Your task to perform on an android device: Add asus rog to the cart on ebay.com, then select checkout. Image 0: 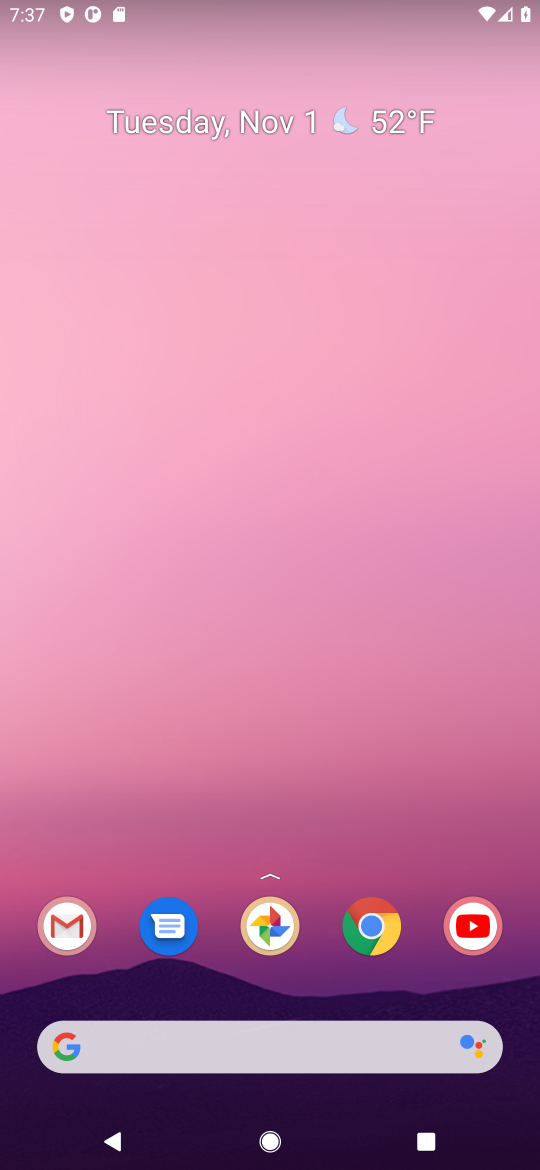
Step 0: click (390, 910)
Your task to perform on an android device: Add asus rog to the cart on ebay.com, then select checkout. Image 1: 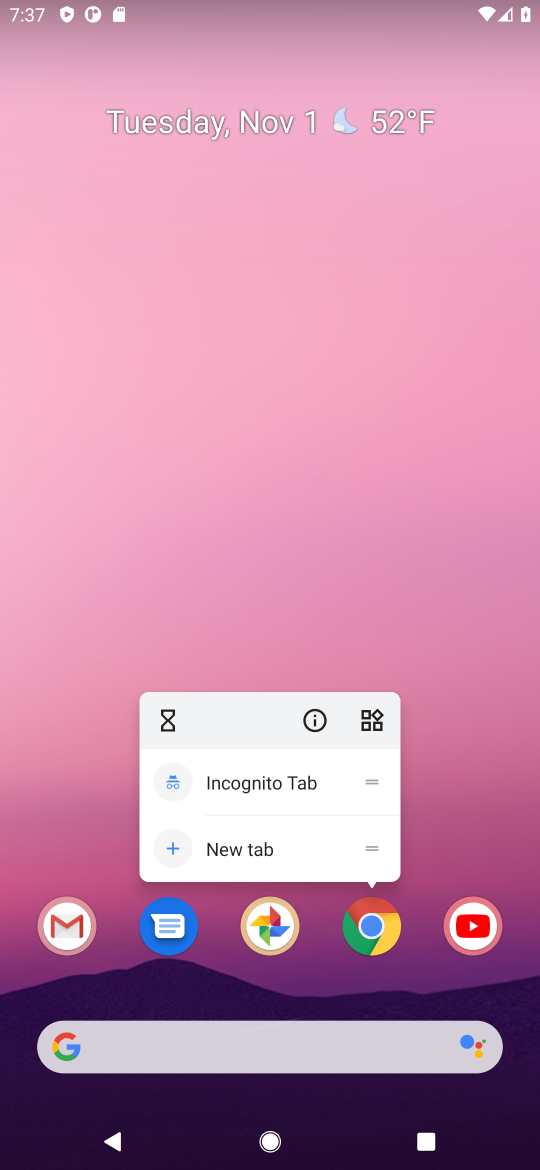
Step 1: click (348, 918)
Your task to perform on an android device: Add asus rog to the cart on ebay.com, then select checkout. Image 2: 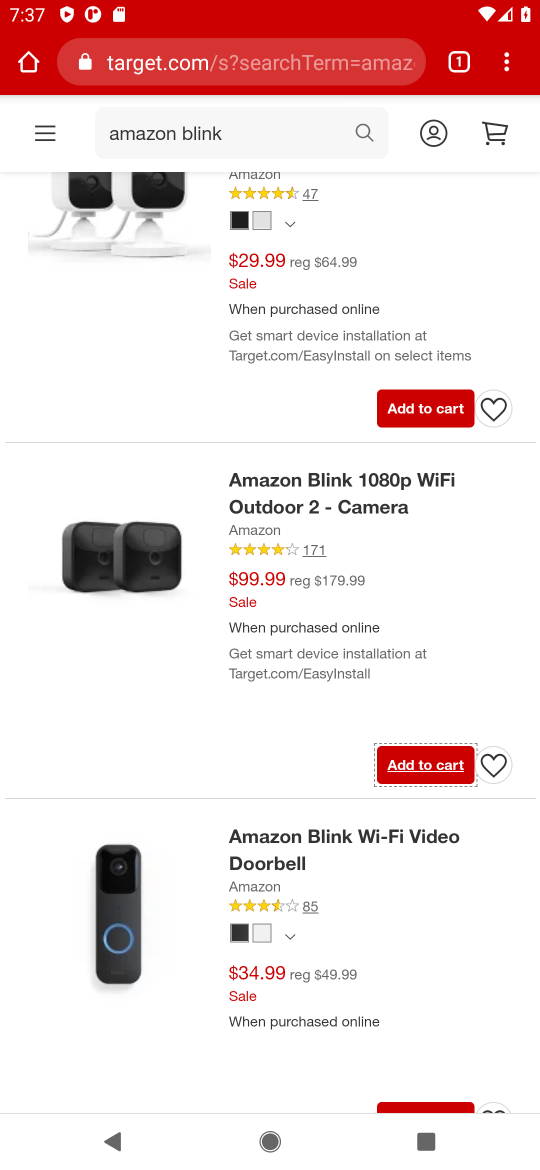
Step 2: click (174, 66)
Your task to perform on an android device: Add asus rog to the cart on ebay.com, then select checkout. Image 3: 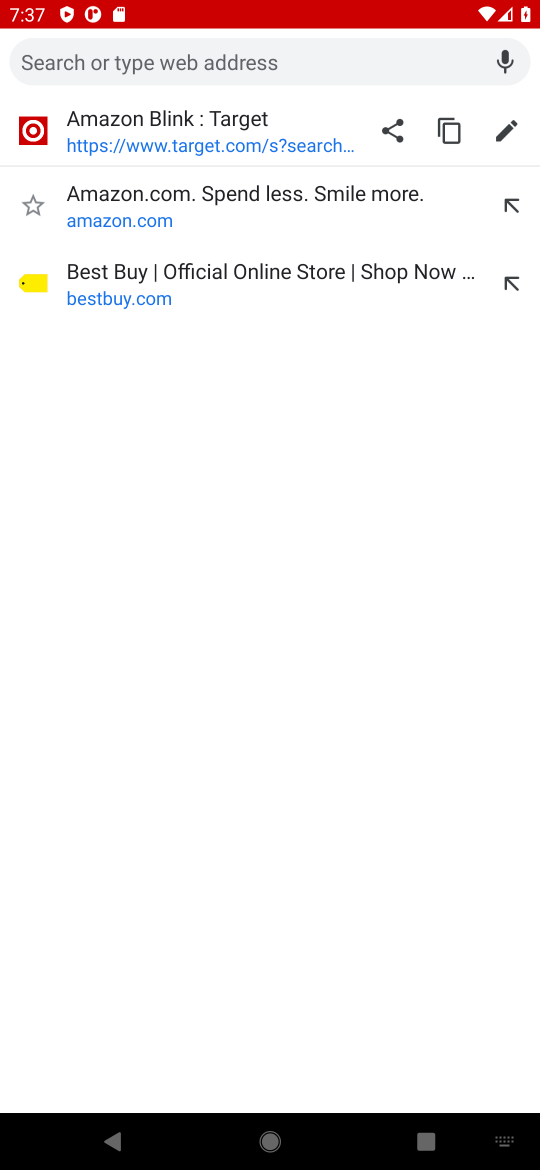
Step 3: type "ebay.com"
Your task to perform on an android device: Add asus rog to the cart on ebay.com, then select checkout. Image 4: 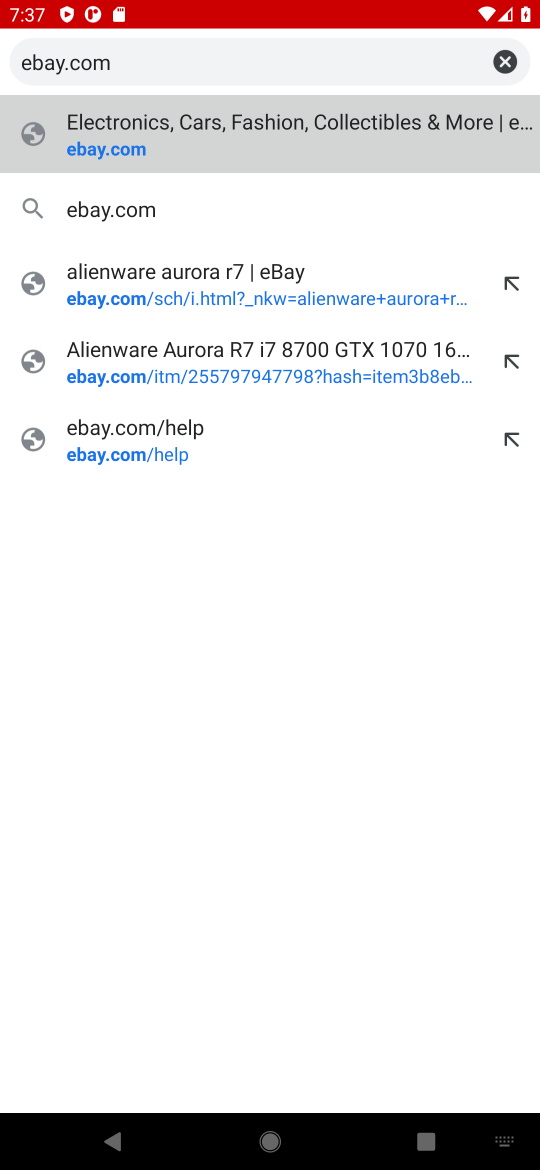
Step 4: click (207, 126)
Your task to perform on an android device: Add asus rog to the cart on ebay.com, then select checkout. Image 5: 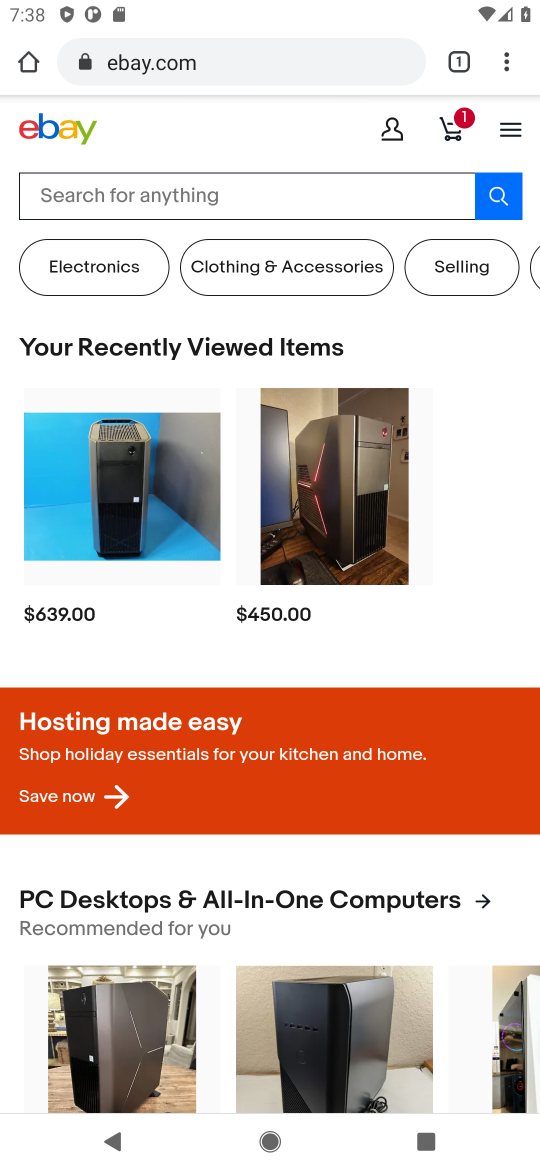
Step 5: click (63, 189)
Your task to perform on an android device: Add asus rog to the cart on ebay.com, then select checkout. Image 6: 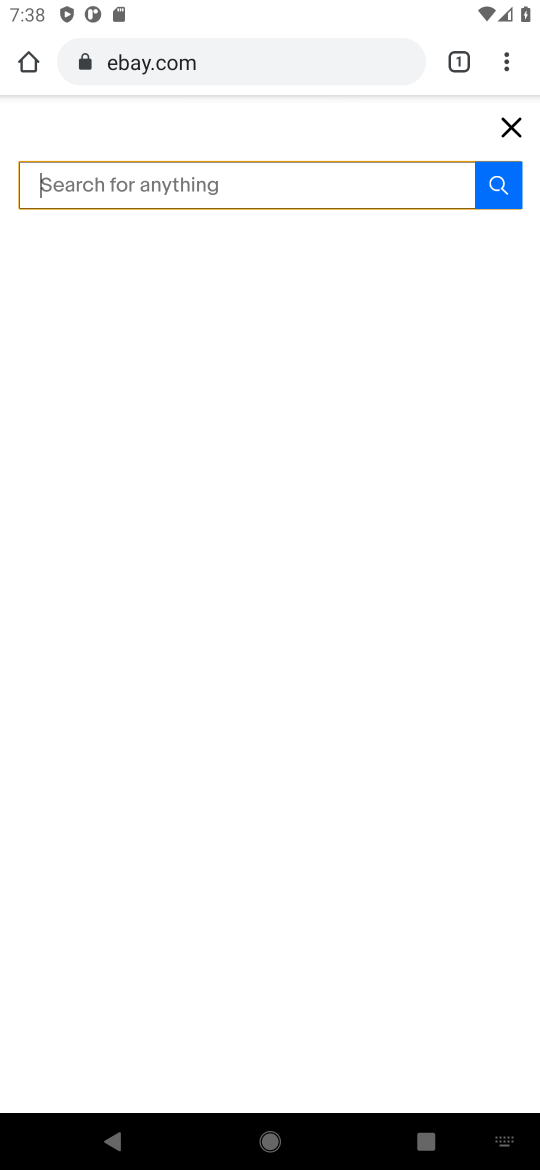
Step 6: type "asus rog"
Your task to perform on an android device: Add asus rog to the cart on ebay.com, then select checkout. Image 7: 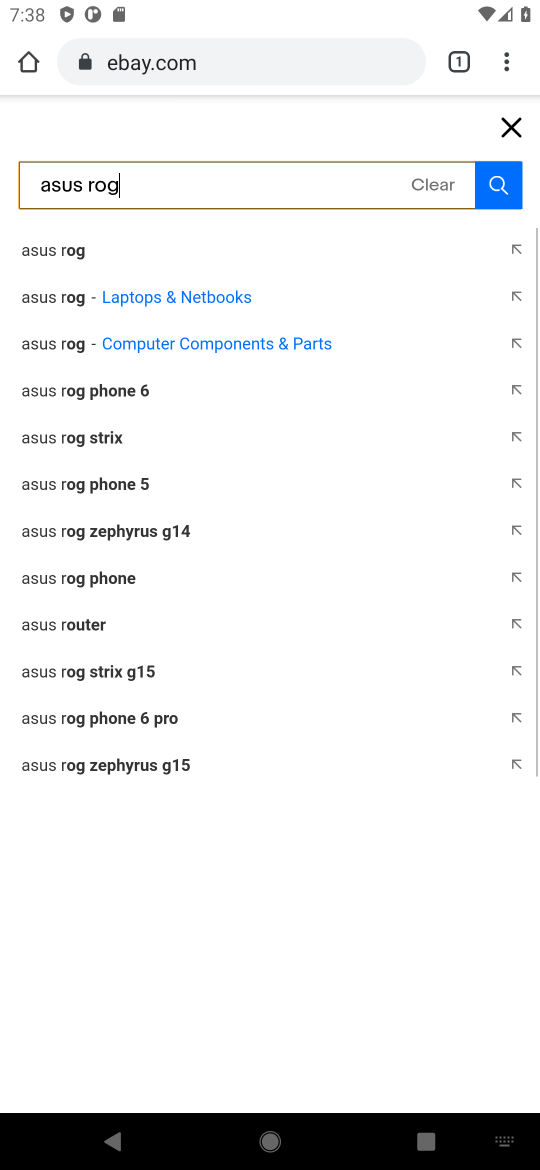
Step 7: type ""
Your task to perform on an android device: Add asus rog to the cart on ebay.com, then select checkout. Image 8: 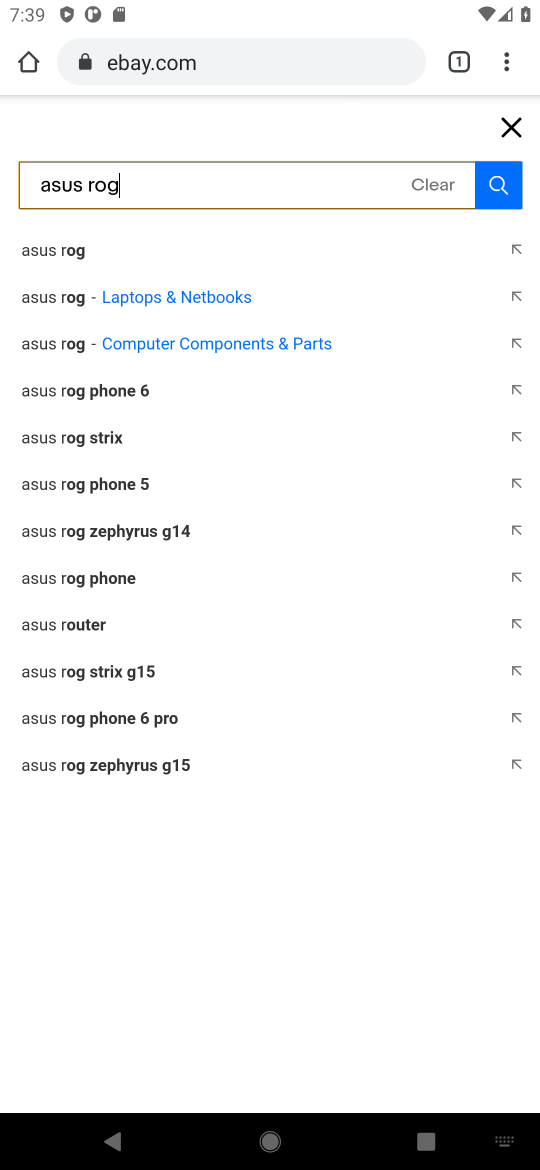
Step 8: click (37, 246)
Your task to perform on an android device: Add asus rog to the cart on ebay.com, then select checkout. Image 9: 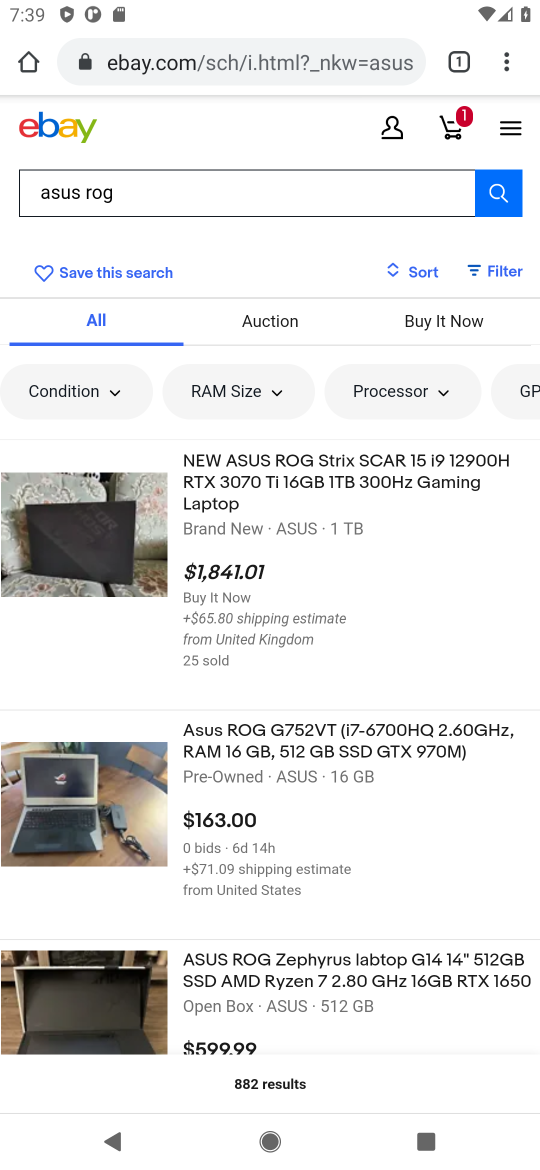
Step 9: click (251, 492)
Your task to perform on an android device: Add asus rog to the cart on ebay.com, then select checkout. Image 10: 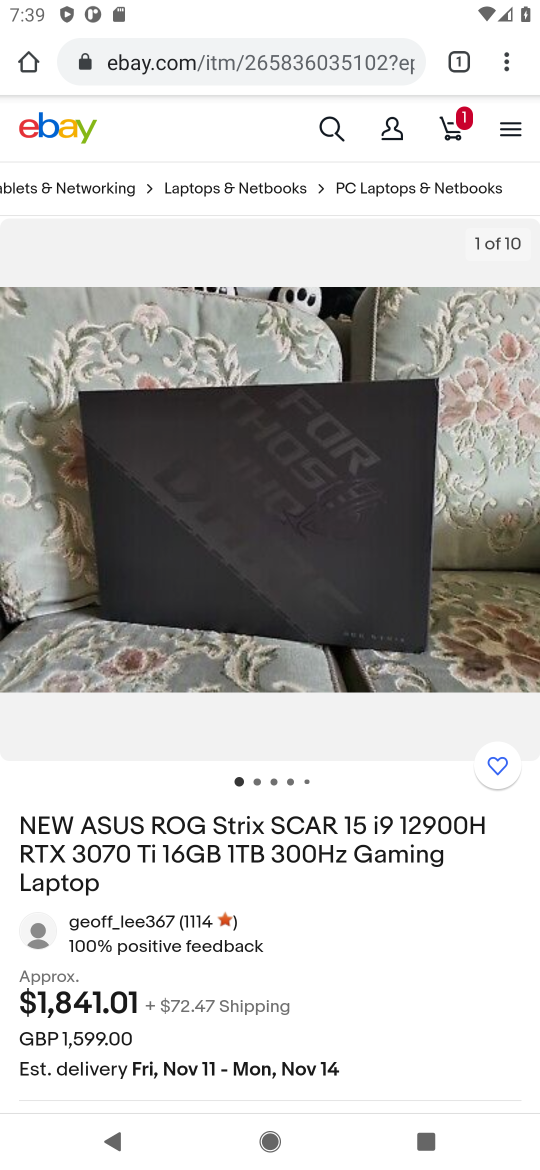
Step 10: drag from (197, 863) to (220, 323)
Your task to perform on an android device: Add asus rog to the cart on ebay.com, then select checkout. Image 11: 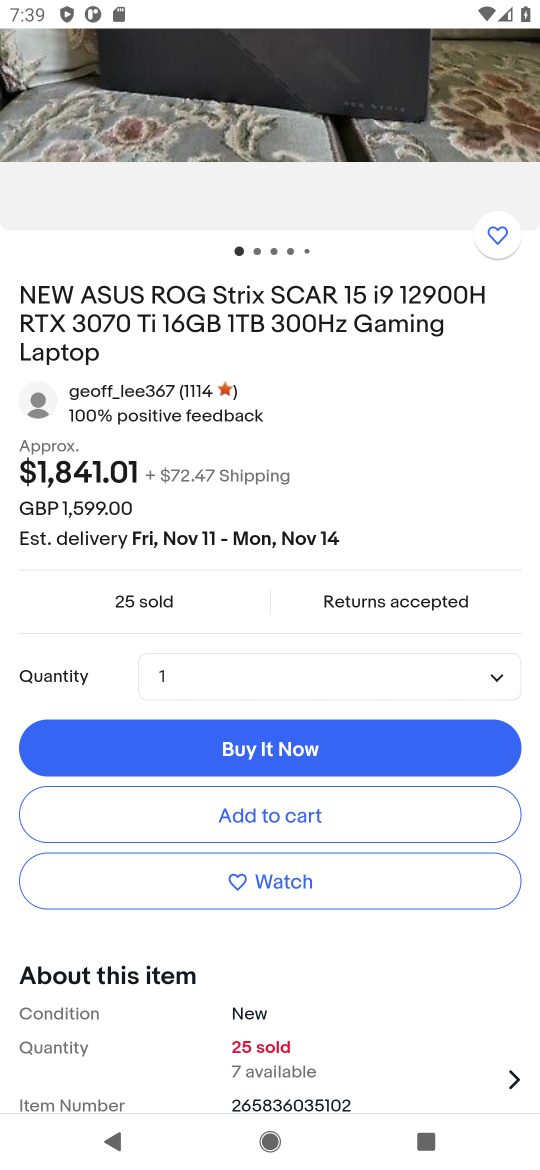
Step 11: click (287, 810)
Your task to perform on an android device: Add asus rog to the cart on ebay.com, then select checkout. Image 12: 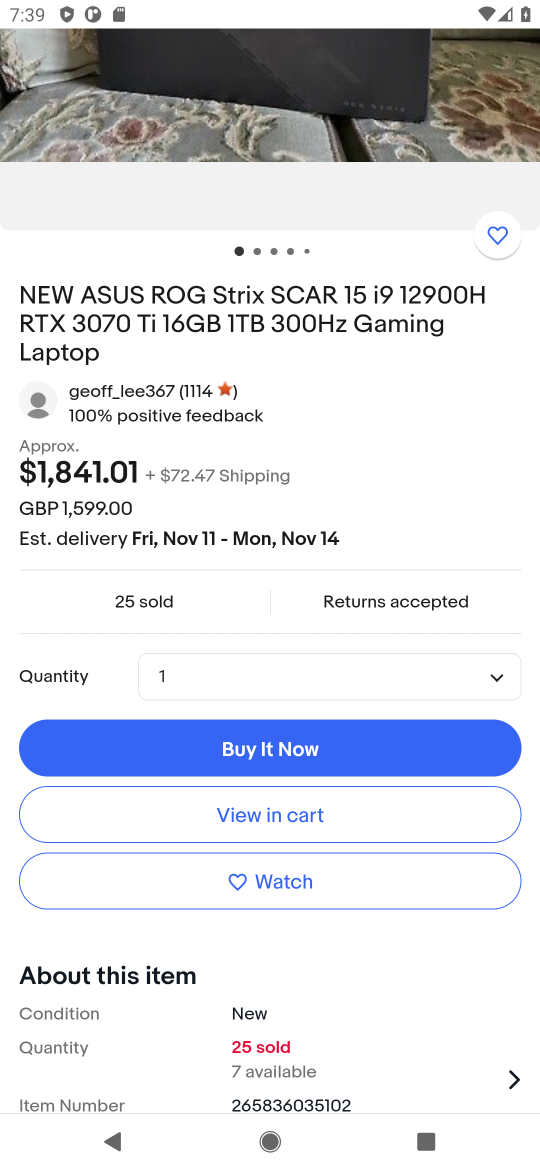
Step 12: click (245, 826)
Your task to perform on an android device: Add asus rog to the cart on ebay.com, then select checkout. Image 13: 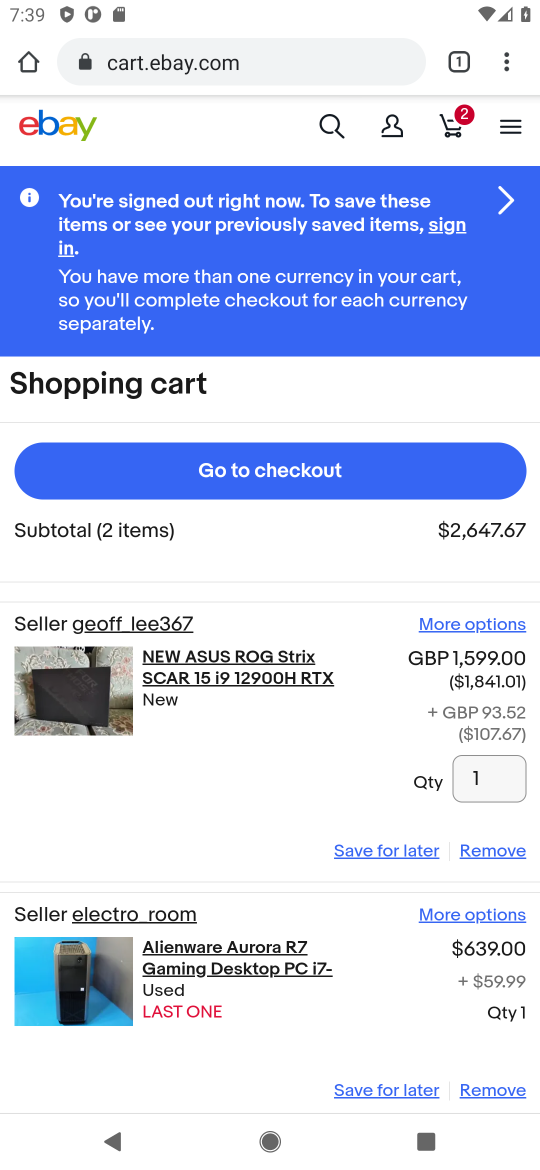
Step 13: click (262, 469)
Your task to perform on an android device: Add asus rog to the cart on ebay.com, then select checkout. Image 14: 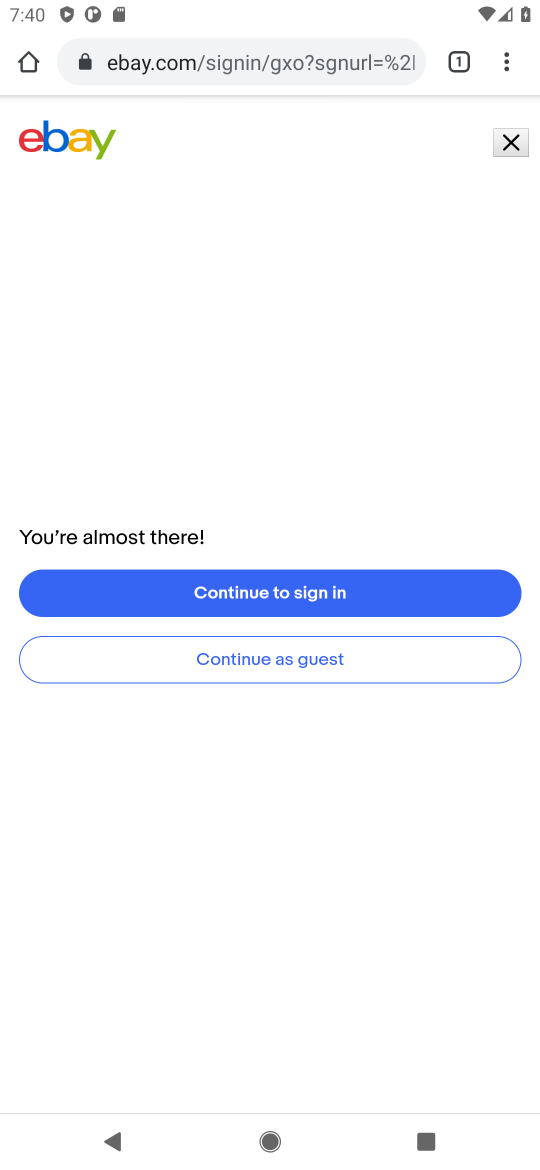
Step 14: task complete